Your task to perform on an android device: Open Wikipedia Image 0: 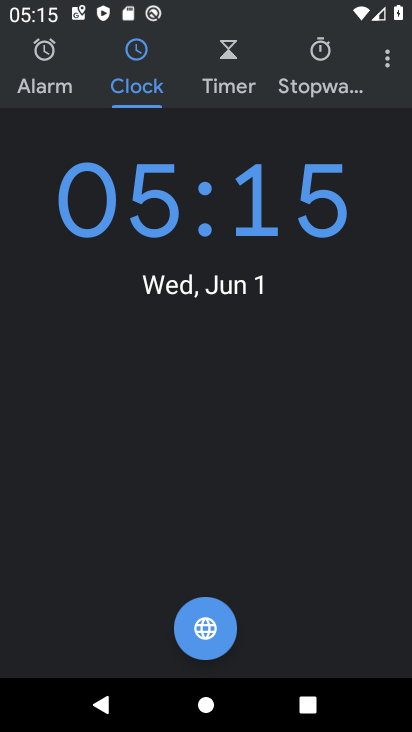
Step 0: press home button
Your task to perform on an android device: Open Wikipedia Image 1: 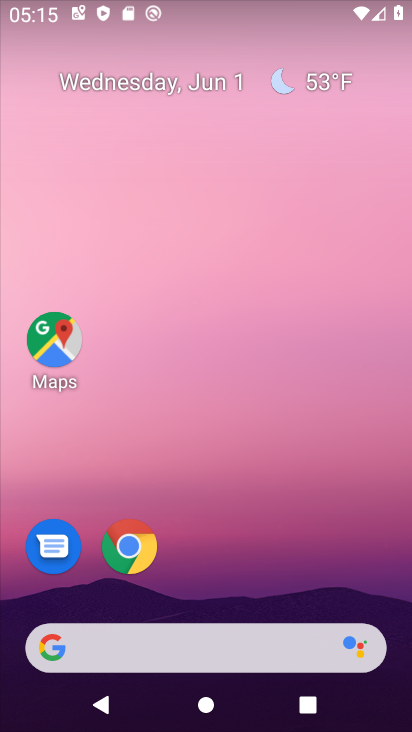
Step 1: click (130, 546)
Your task to perform on an android device: Open Wikipedia Image 2: 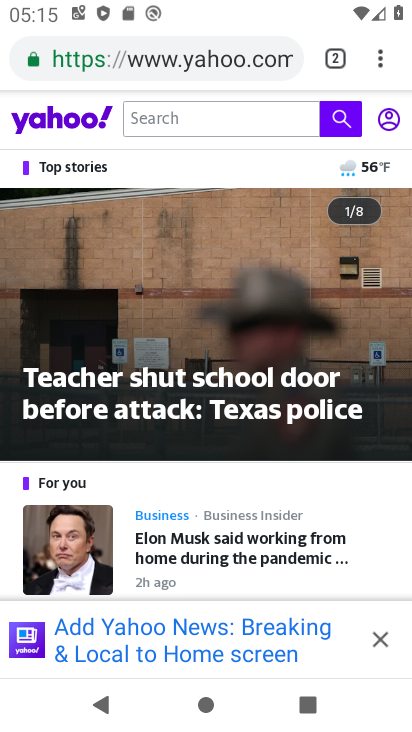
Step 2: click (379, 55)
Your task to perform on an android device: Open Wikipedia Image 3: 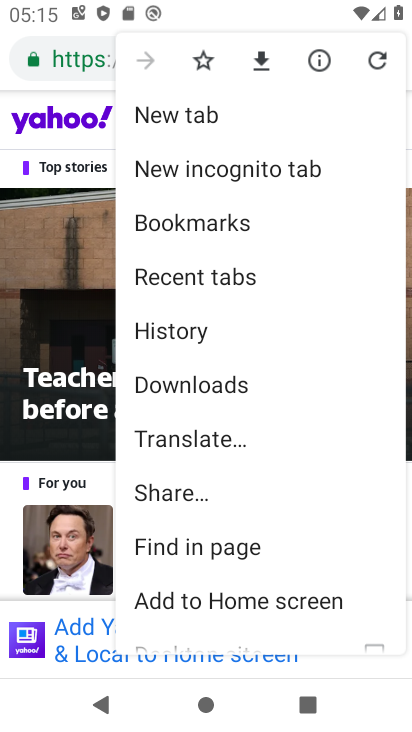
Step 3: click (183, 117)
Your task to perform on an android device: Open Wikipedia Image 4: 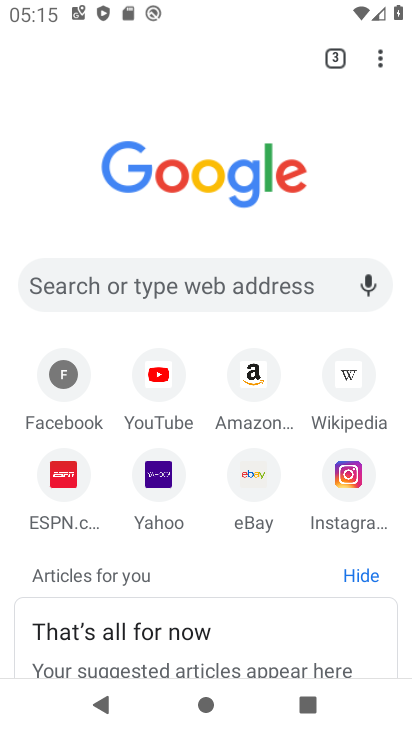
Step 4: click (354, 378)
Your task to perform on an android device: Open Wikipedia Image 5: 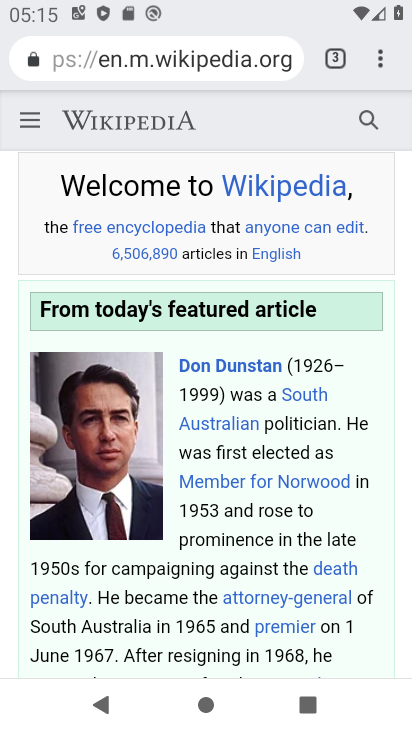
Step 5: task complete